Your task to perform on an android device: Search for "bose quietcomfort 35" on newegg, select the first entry, add it to the cart, then select checkout. Image 0: 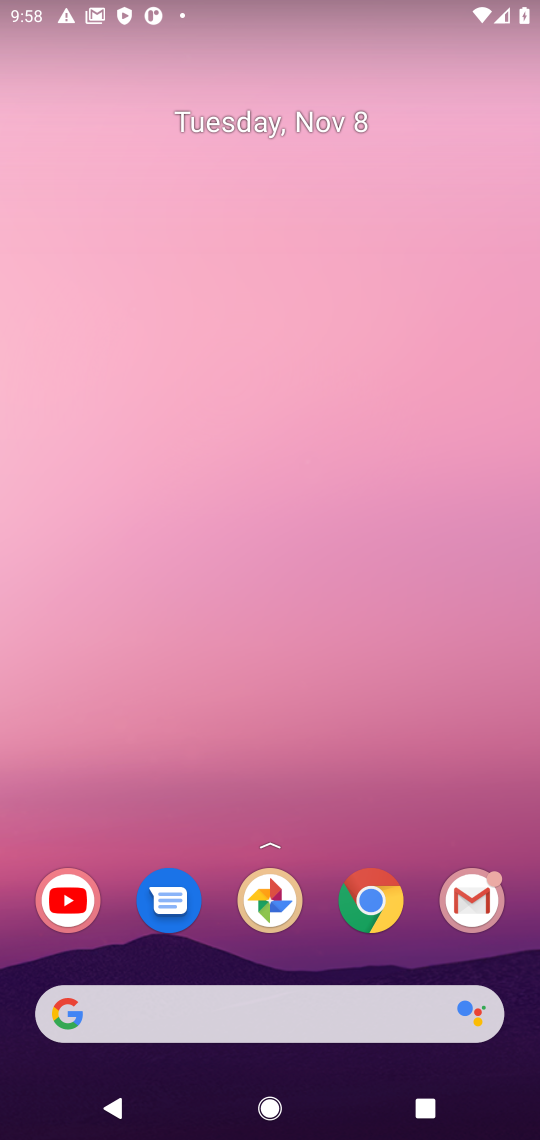
Step 0: click (368, 912)
Your task to perform on an android device: Search for "bose quietcomfort 35" on newegg, select the first entry, add it to the cart, then select checkout. Image 1: 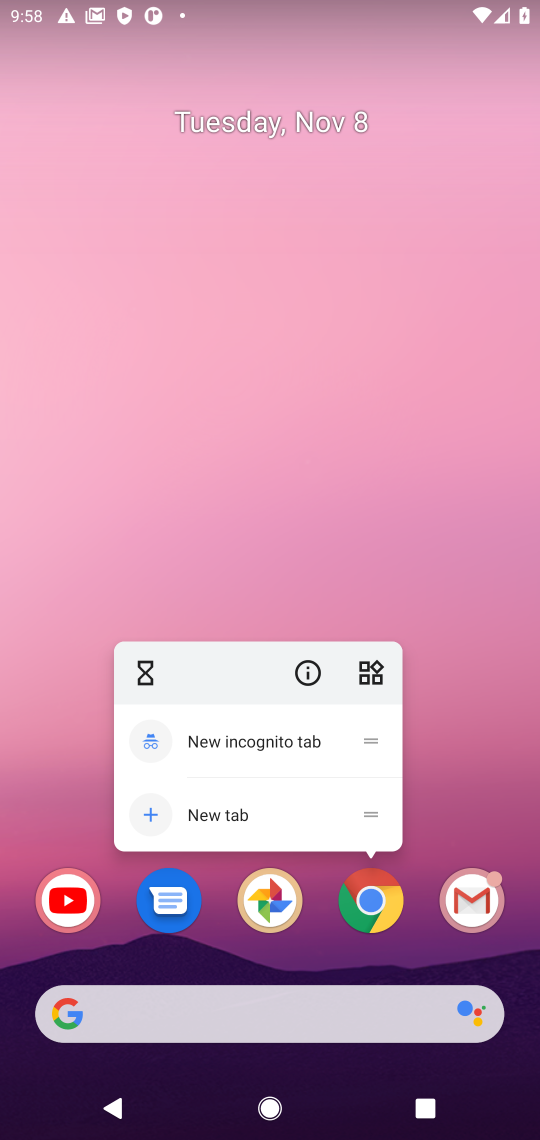
Step 1: click (358, 891)
Your task to perform on an android device: Search for "bose quietcomfort 35" on newegg, select the first entry, add it to the cart, then select checkout. Image 2: 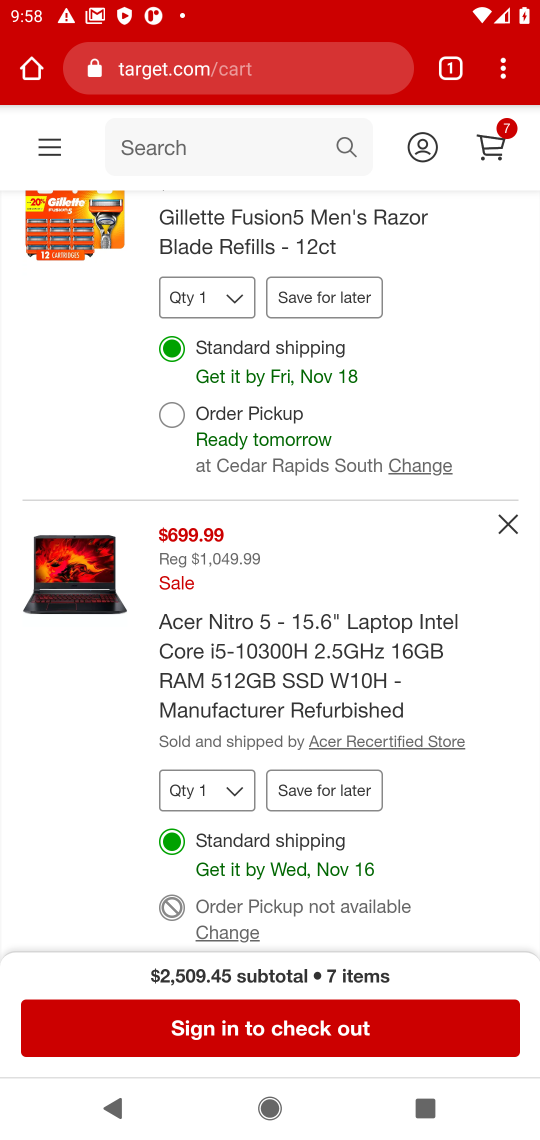
Step 2: click (229, 76)
Your task to perform on an android device: Search for "bose quietcomfort 35" on newegg, select the first entry, add it to the cart, then select checkout. Image 3: 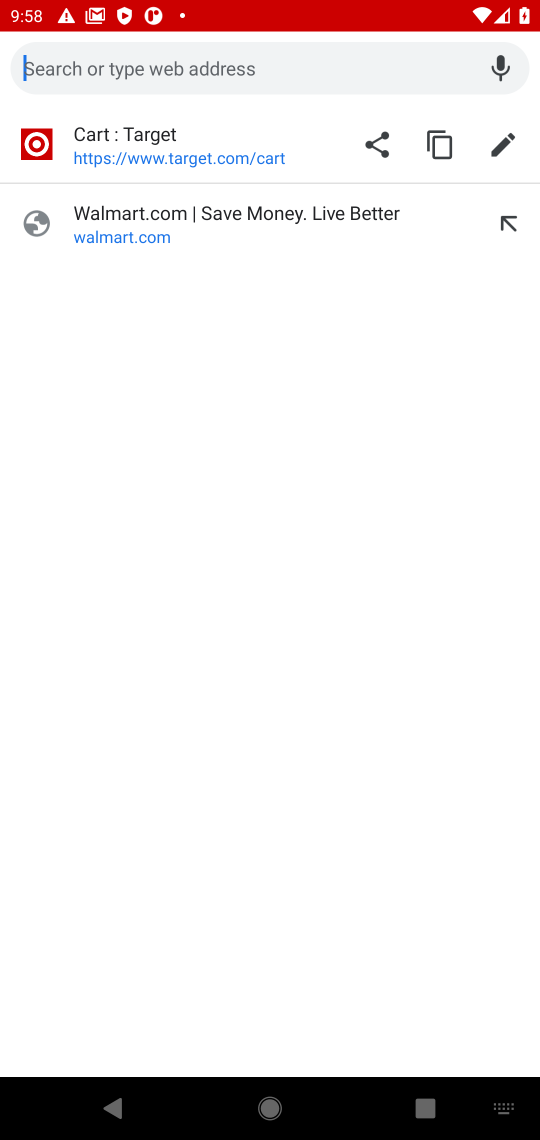
Step 3: type "newegg"
Your task to perform on an android device: Search for "bose quietcomfort 35" on newegg, select the first entry, add it to the cart, then select checkout. Image 4: 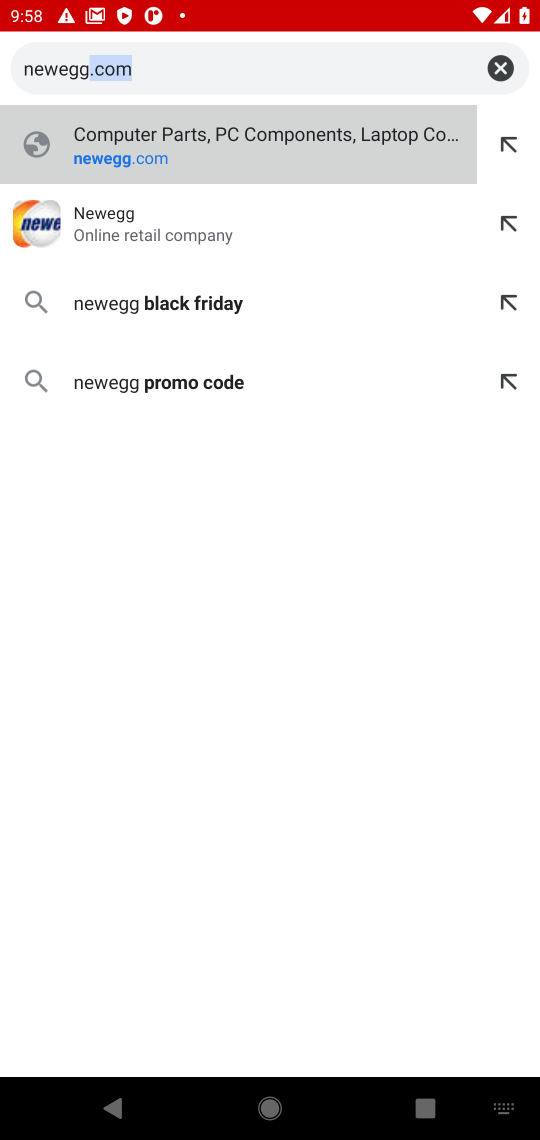
Step 4: type ""
Your task to perform on an android device: Search for "bose quietcomfort 35" on newegg, select the first entry, add it to the cart, then select checkout. Image 5: 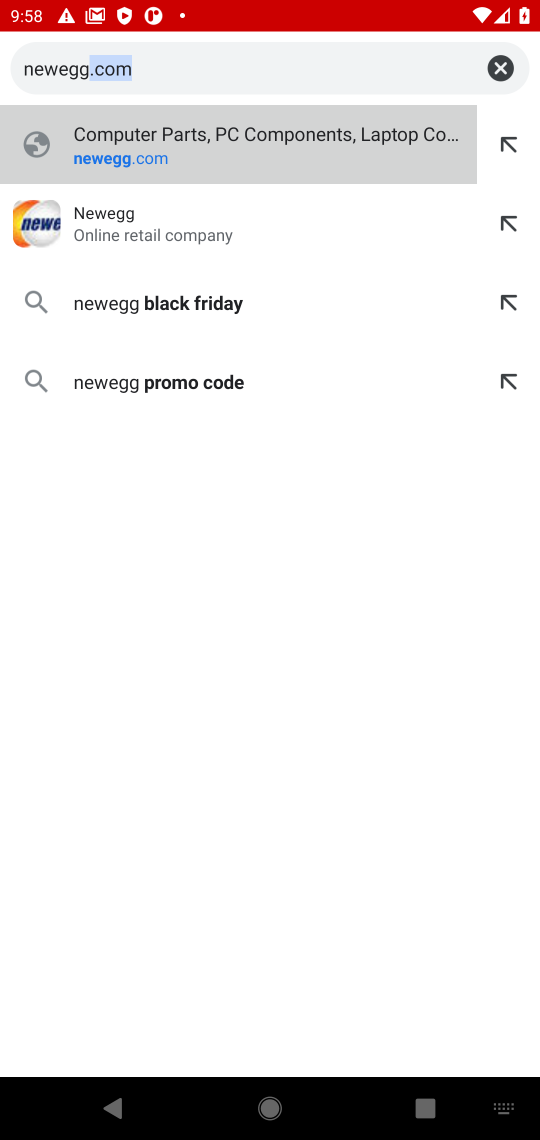
Step 5: click (100, 227)
Your task to perform on an android device: Search for "bose quietcomfort 35" on newegg, select the first entry, add it to the cart, then select checkout. Image 6: 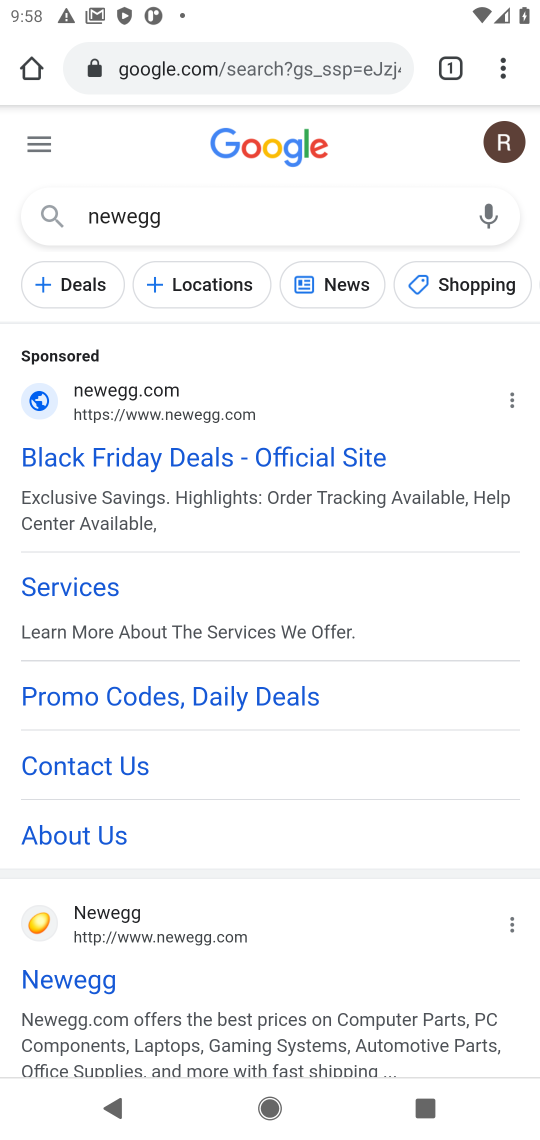
Step 6: drag from (176, 870) to (214, 378)
Your task to perform on an android device: Search for "bose quietcomfort 35" on newegg, select the first entry, add it to the cart, then select checkout. Image 7: 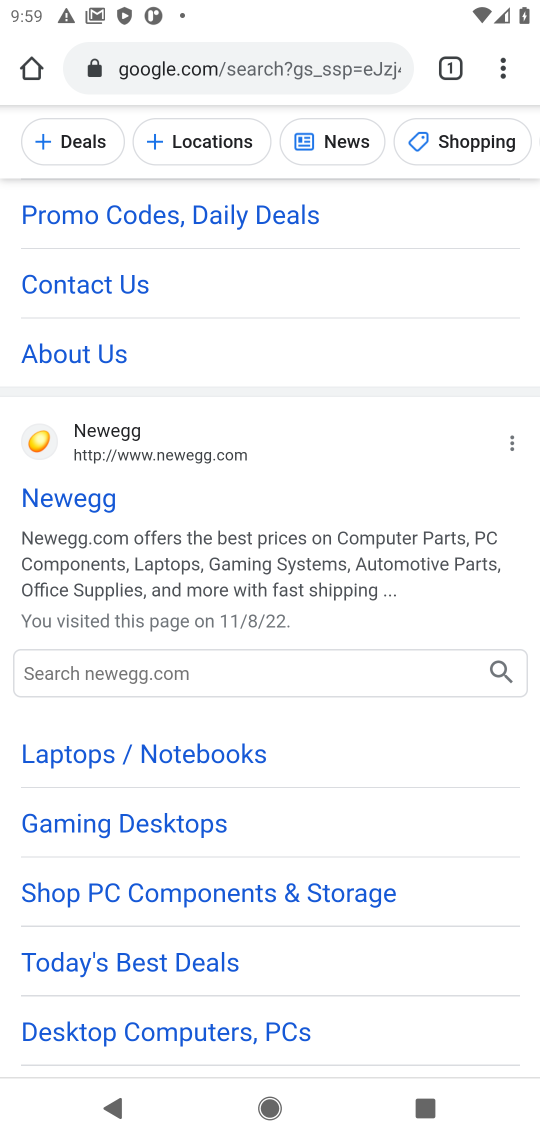
Step 7: click (66, 502)
Your task to perform on an android device: Search for "bose quietcomfort 35" on newegg, select the first entry, add it to the cart, then select checkout. Image 8: 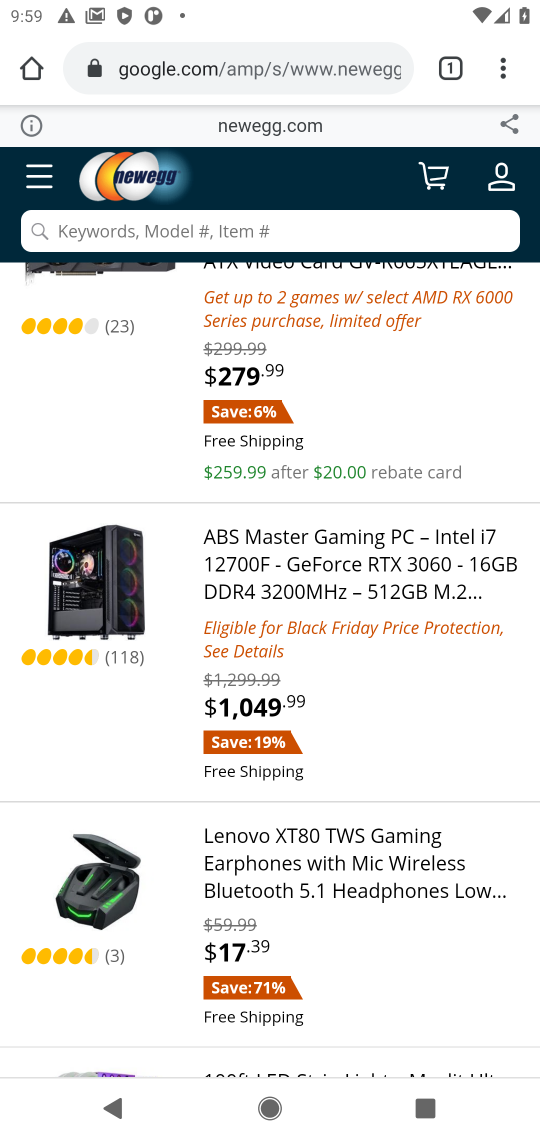
Step 8: click (177, 240)
Your task to perform on an android device: Search for "bose quietcomfort 35" on newegg, select the first entry, add it to the cart, then select checkout. Image 9: 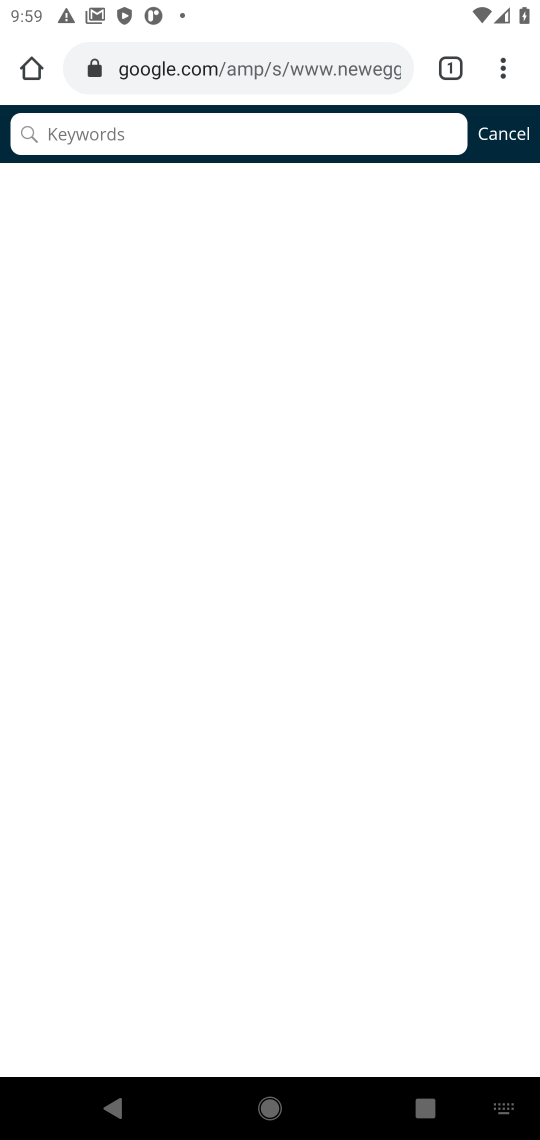
Step 9: type "bose quietcomfort"
Your task to perform on an android device: Search for "bose quietcomfort 35" on newegg, select the first entry, add it to the cart, then select checkout. Image 10: 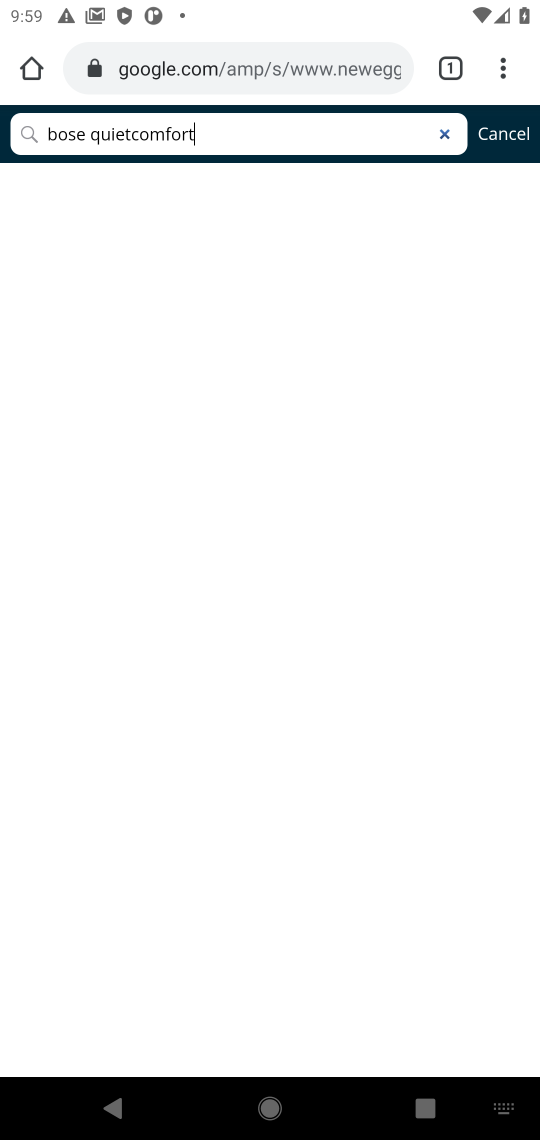
Step 10: type ""
Your task to perform on an android device: Search for "bose quietcomfort 35" on newegg, select the first entry, add it to the cart, then select checkout. Image 11: 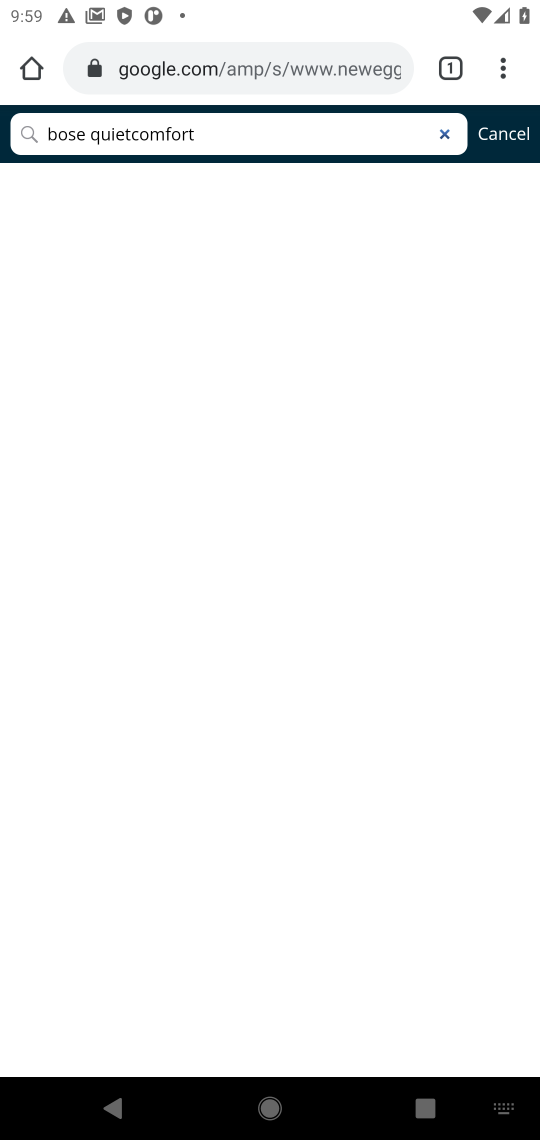
Step 11: type ""
Your task to perform on an android device: Search for "bose quietcomfort 35" on newegg, select the first entry, add it to the cart, then select checkout. Image 12: 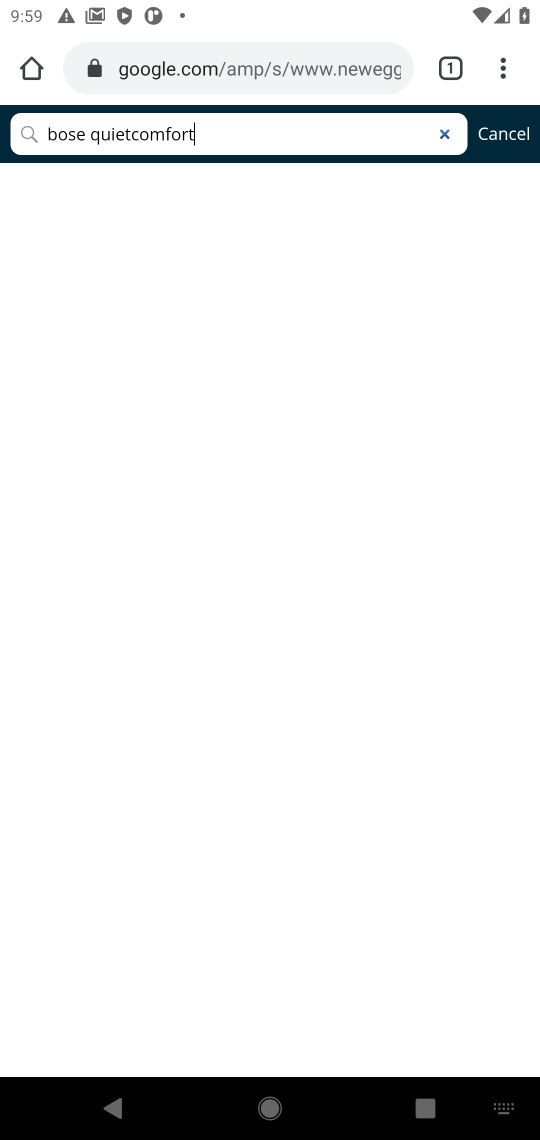
Step 12: task complete